Your task to perform on an android device: Search for usb-c on bestbuy, select the first entry, add it to the cart, then select checkout. Image 0: 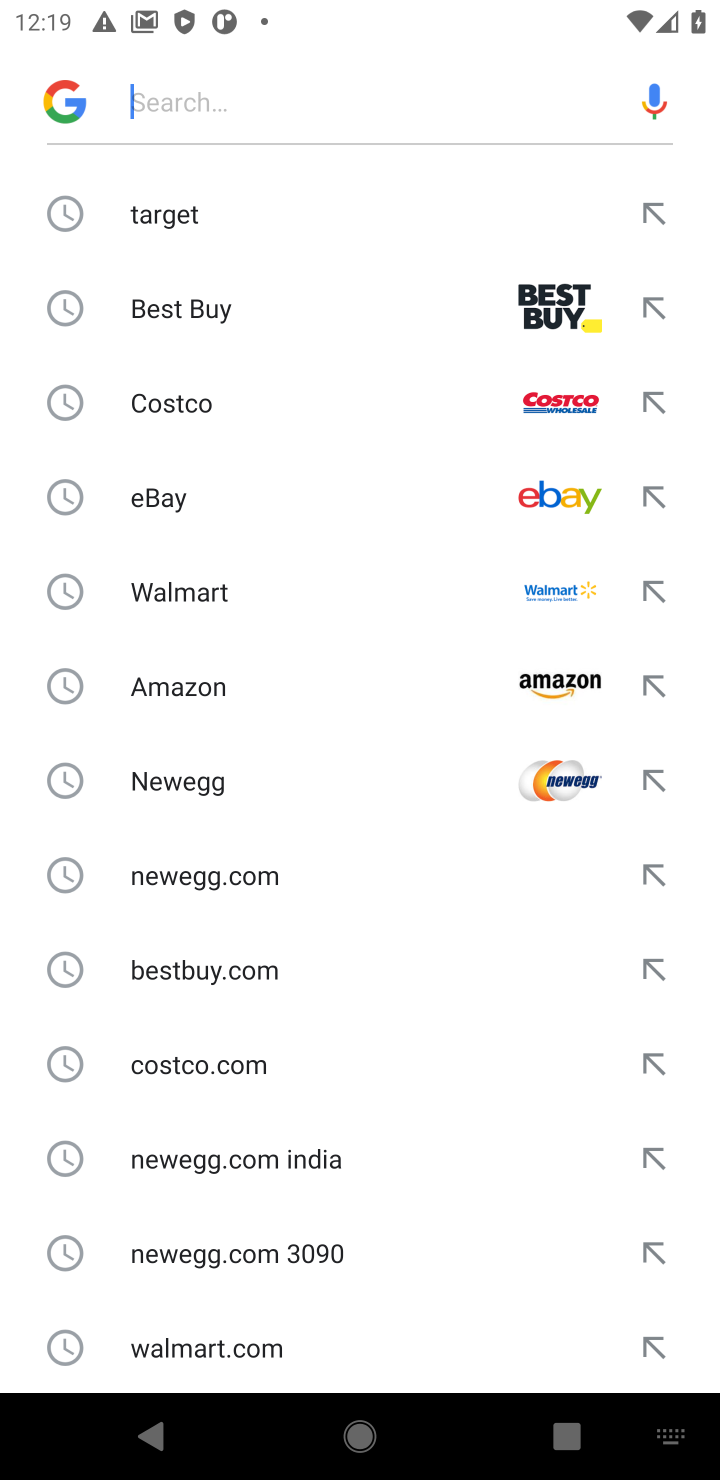
Step 0: click (175, 113)
Your task to perform on an android device: Search for usb-c on bestbuy, select the first entry, add it to the cart, then select checkout. Image 1: 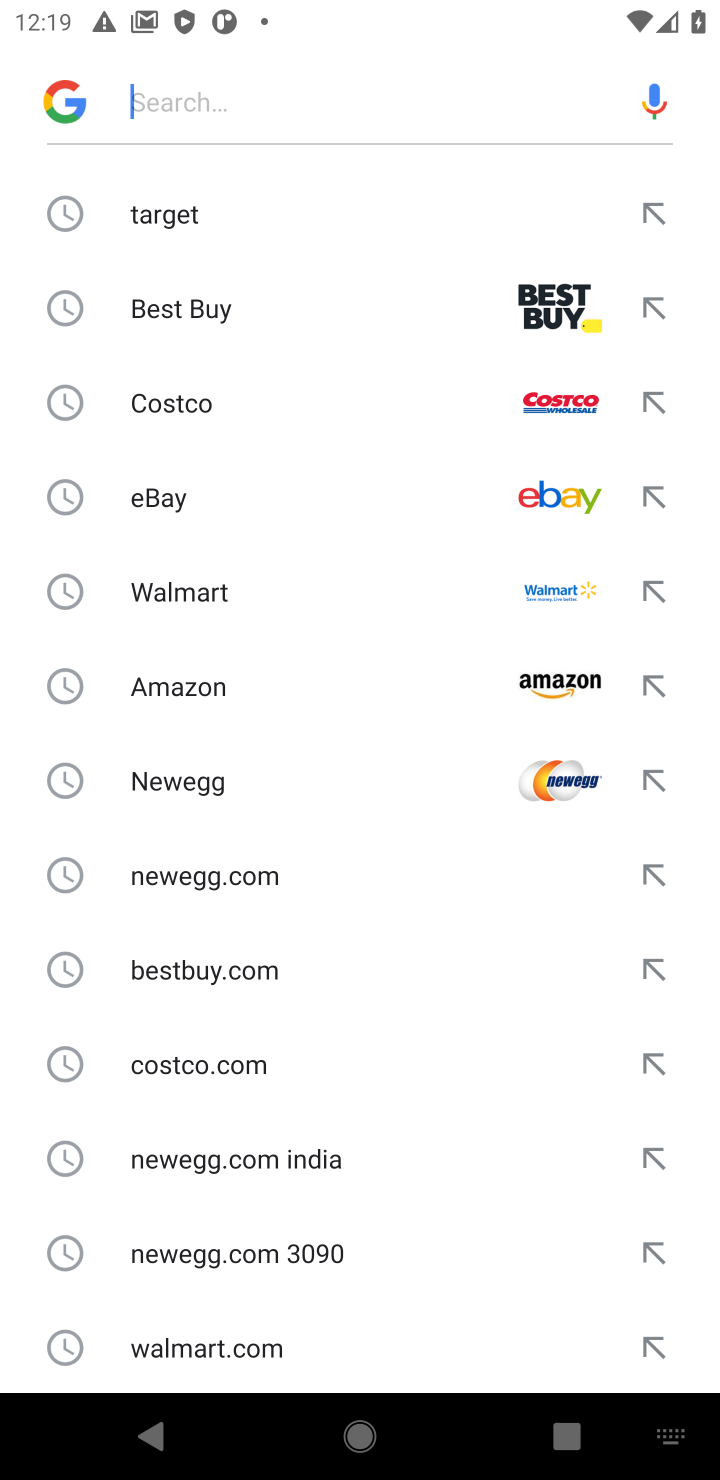
Step 1: type "bestbuy.com"
Your task to perform on an android device: Search for usb-c on bestbuy, select the first entry, add it to the cart, then select checkout. Image 2: 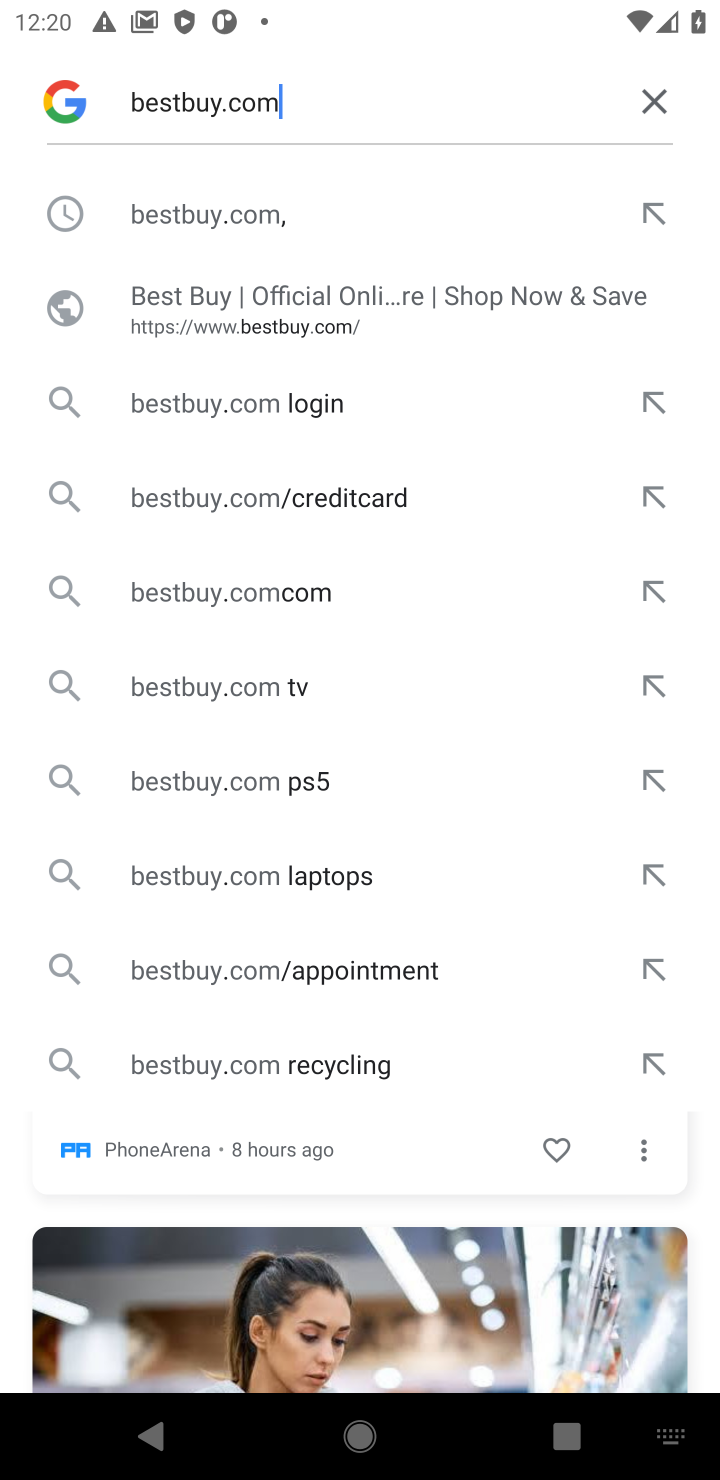
Step 2: click (181, 217)
Your task to perform on an android device: Search for usb-c on bestbuy, select the first entry, add it to the cart, then select checkout. Image 3: 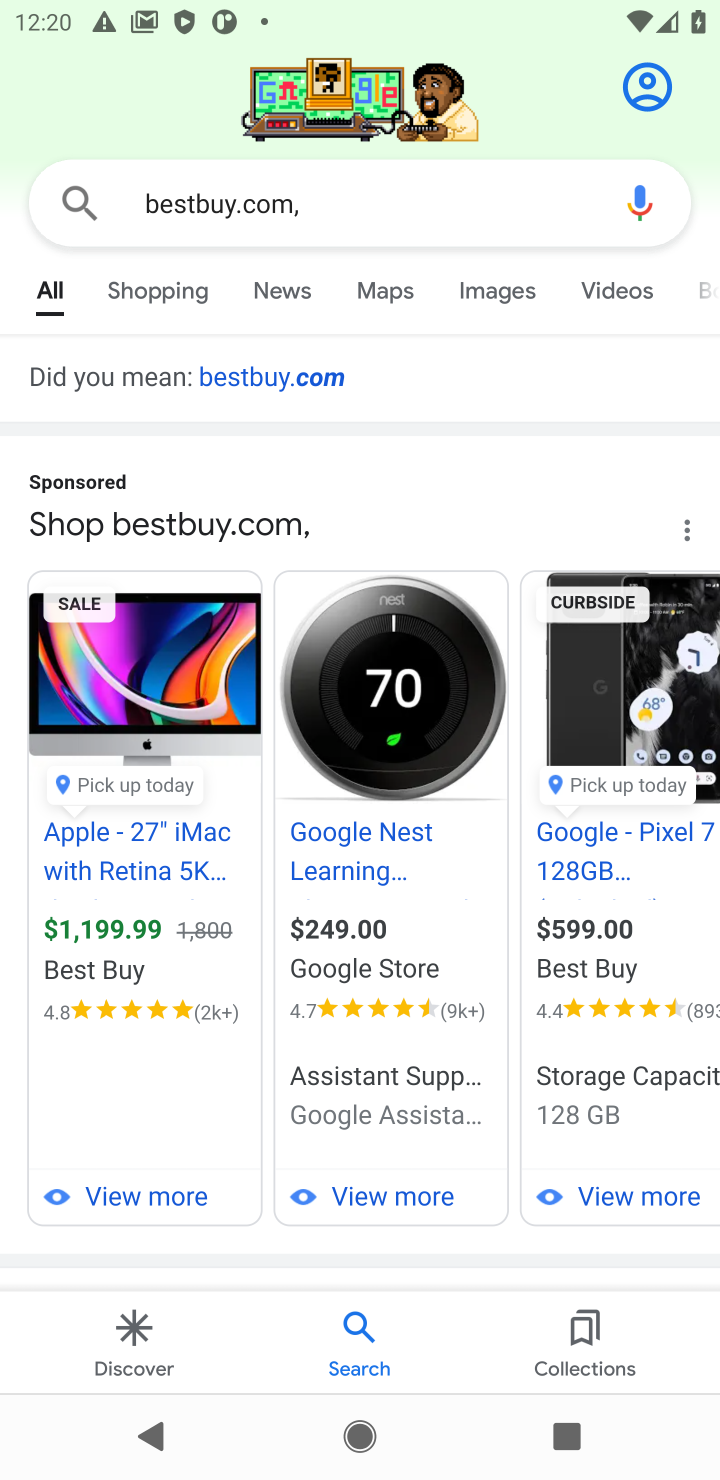
Step 3: drag from (182, 747) to (180, 354)
Your task to perform on an android device: Search for usb-c on bestbuy, select the first entry, add it to the cart, then select checkout. Image 4: 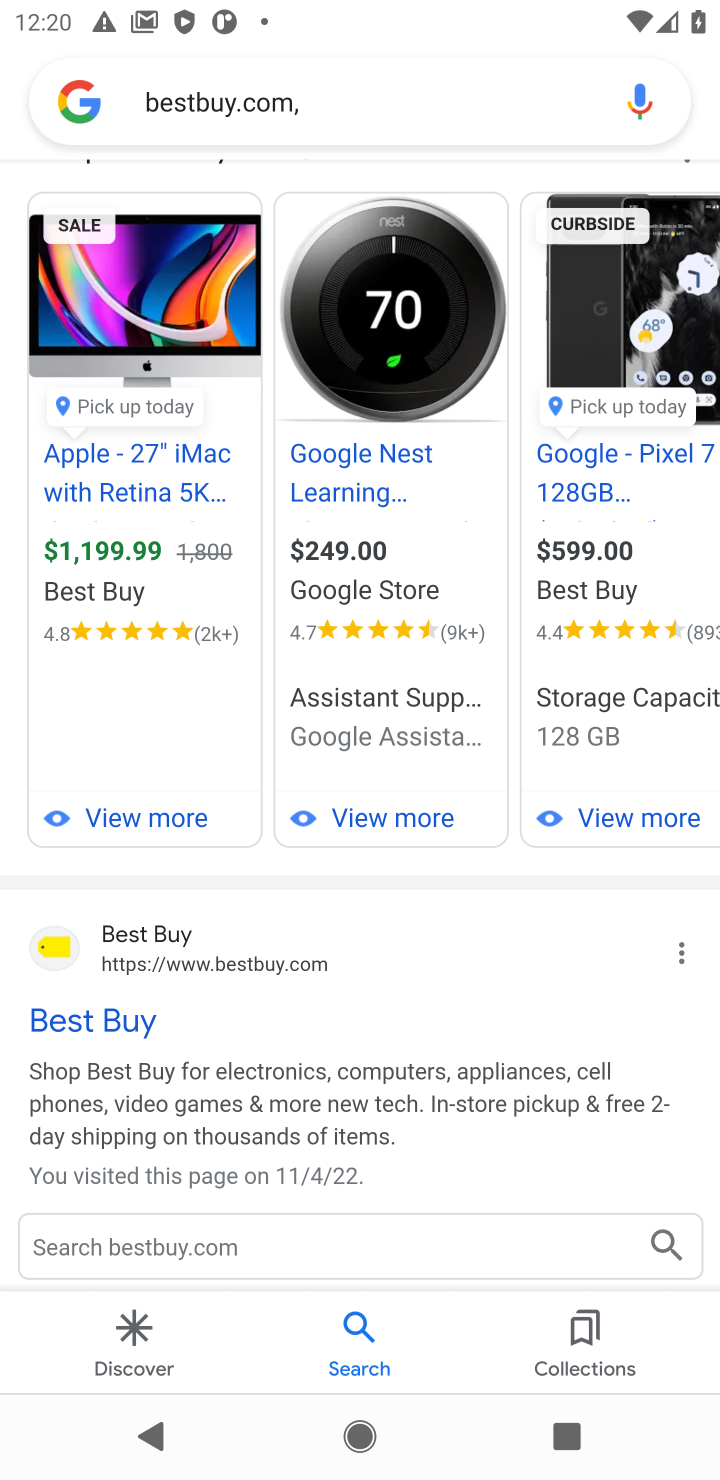
Step 4: click (69, 1031)
Your task to perform on an android device: Search for usb-c on bestbuy, select the first entry, add it to the cart, then select checkout. Image 5: 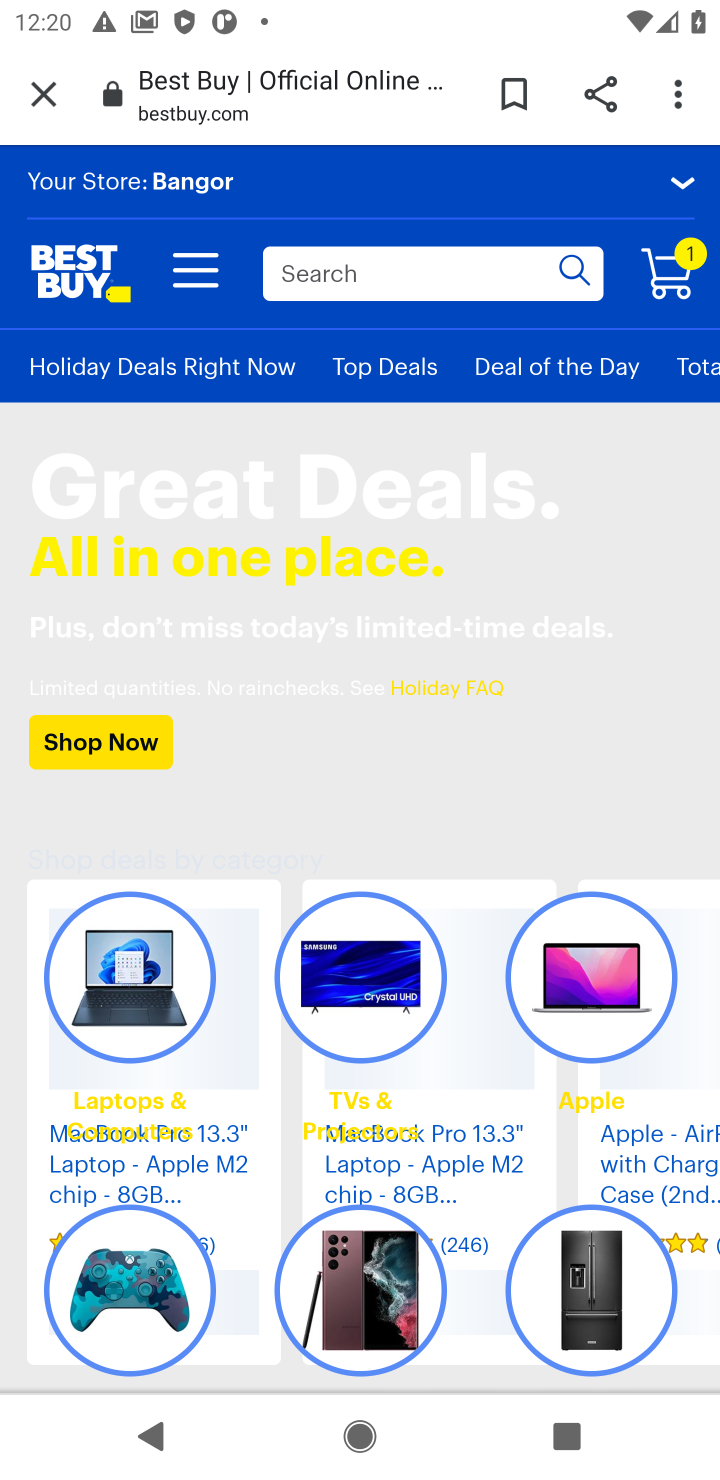
Step 5: click (370, 266)
Your task to perform on an android device: Search for usb-c on bestbuy, select the first entry, add it to the cart, then select checkout. Image 6: 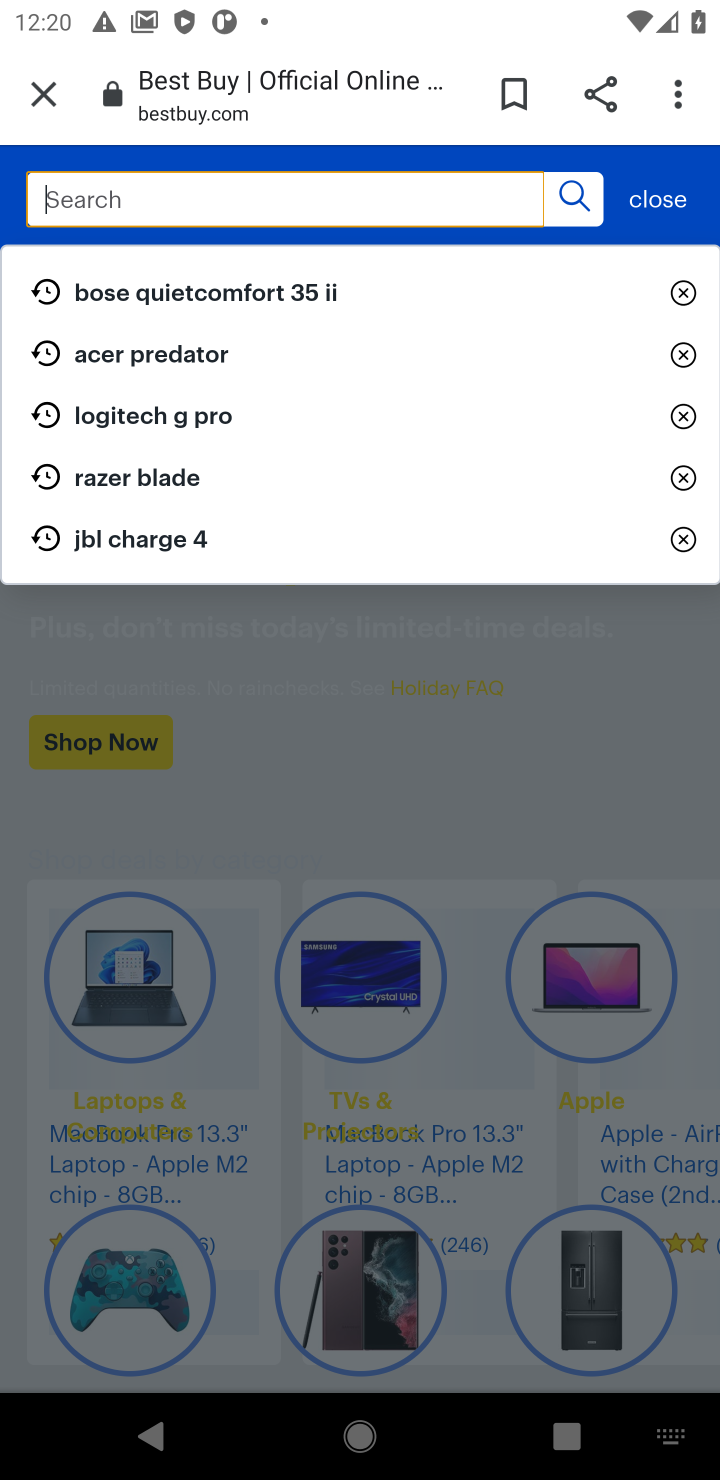
Step 6: type "usb-c"
Your task to perform on an android device: Search for usb-c on bestbuy, select the first entry, add it to the cart, then select checkout. Image 7: 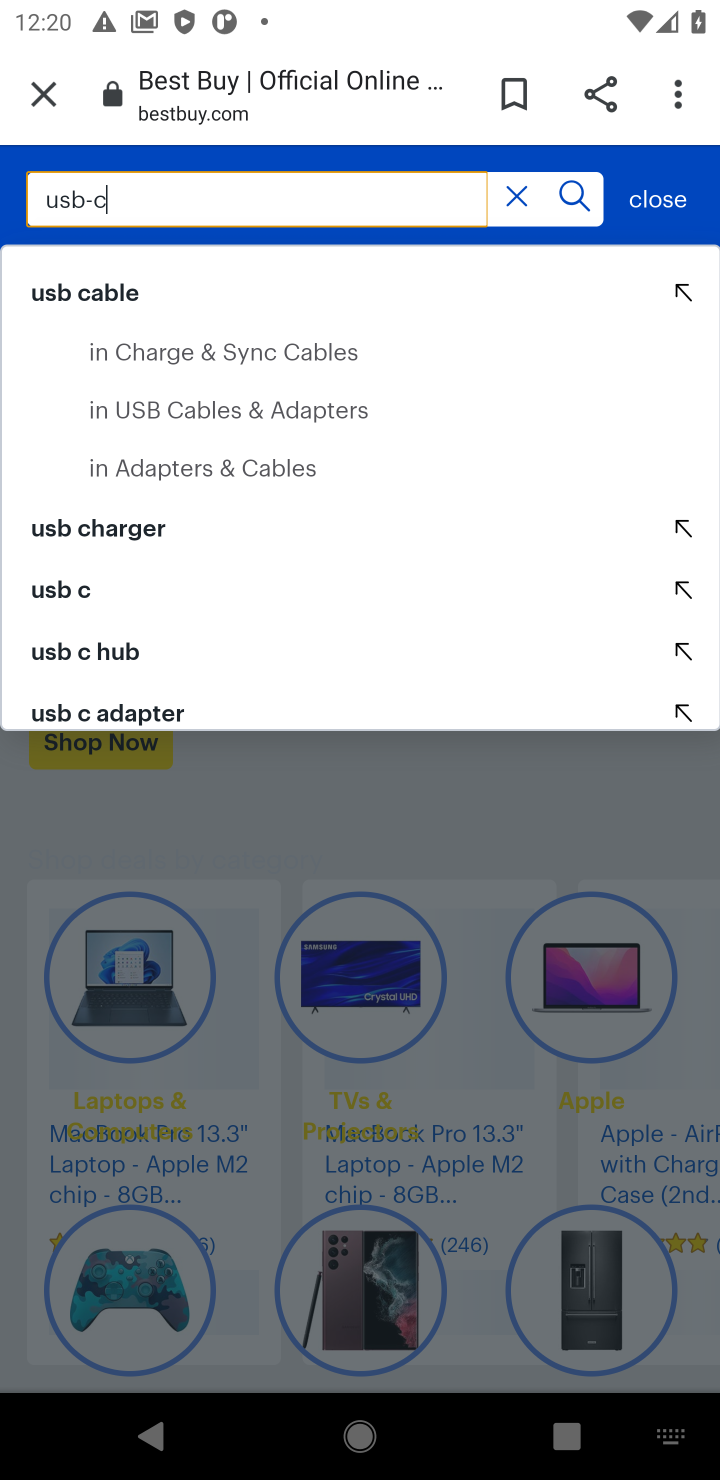
Step 7: click (49, 593)
Your task to perform on an android device: Search for usb-c on bestbuy, select the first entry, add it to the cart, then select checkout. Image 8: 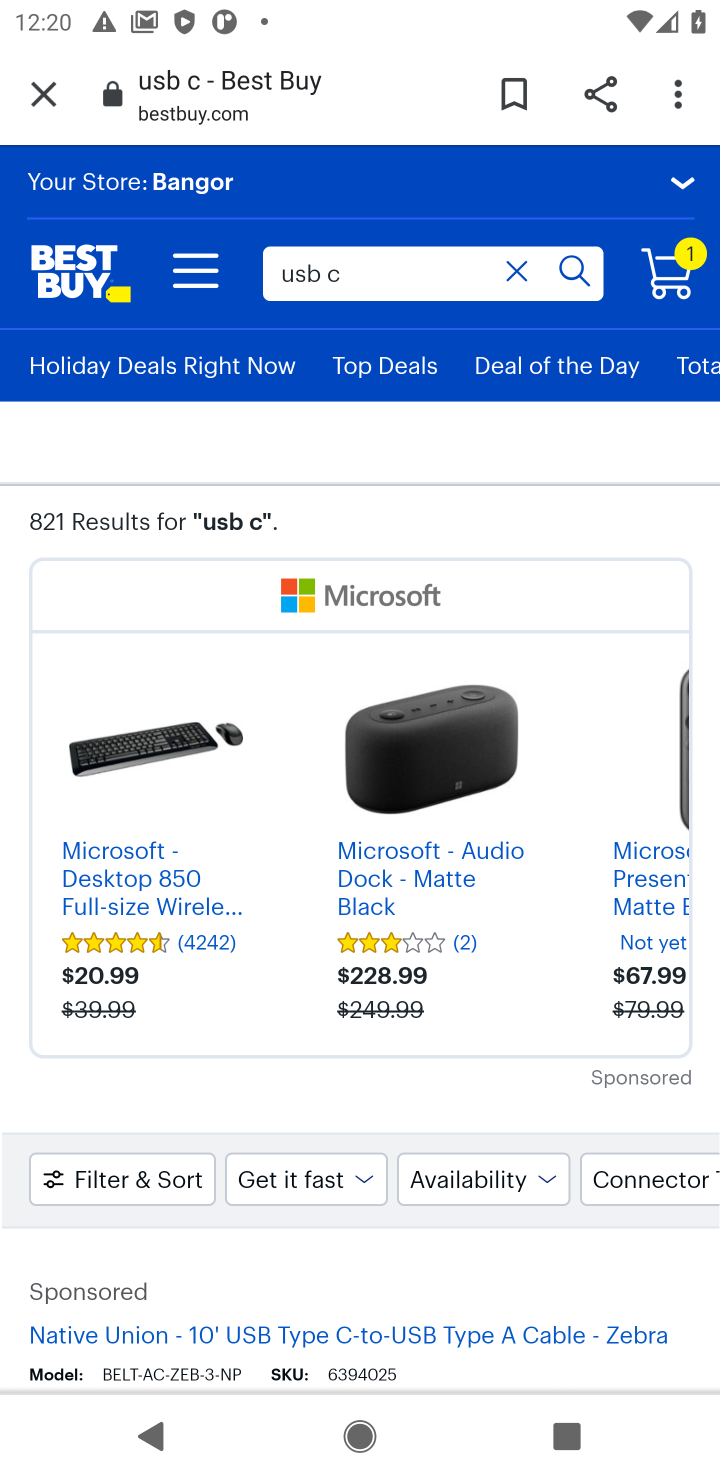
Step 8: drag from (300, 1065) to (299, 577)
Your task to perform on an android device: Search for usb-c on bestbuy, select the first entry, add it to the cart, then select checkout. Image 9: 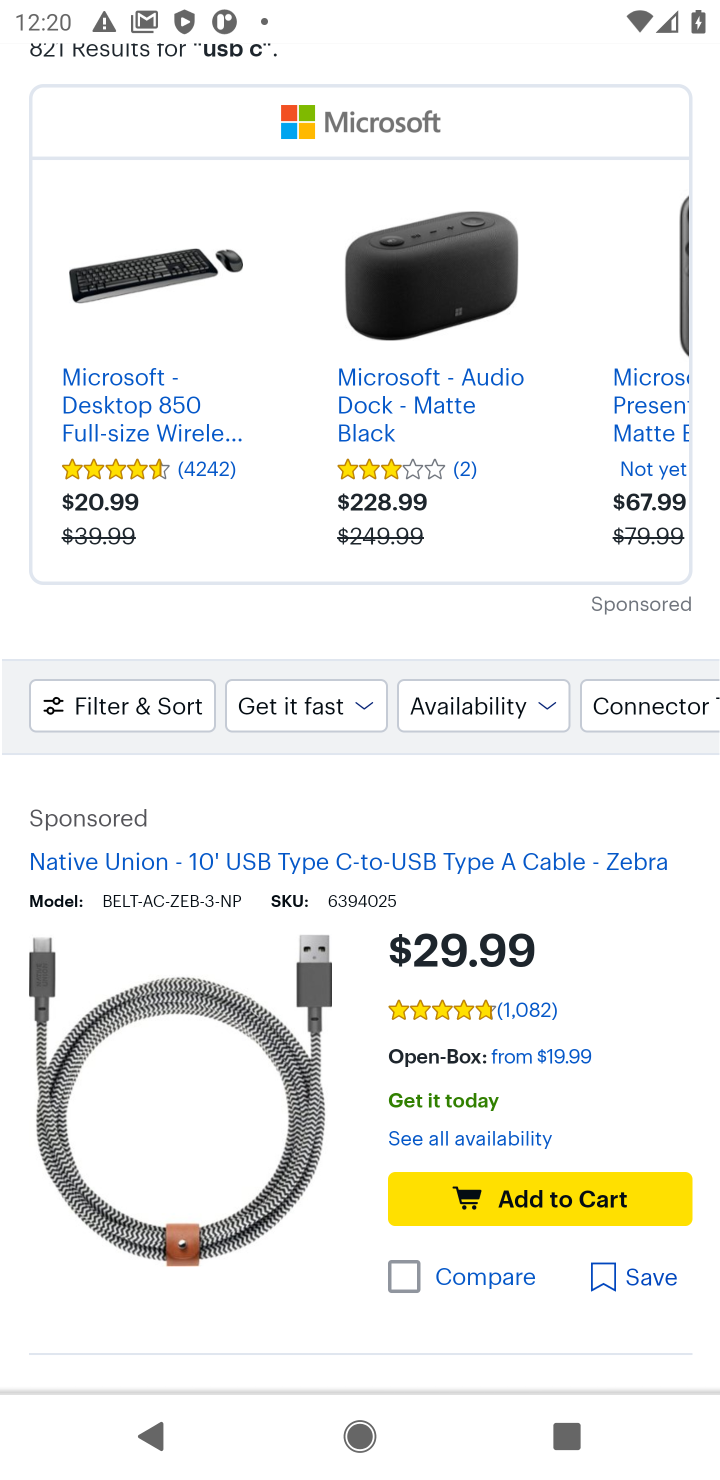
Step 9: drag from (267, 991) to (308, 570)
Your task to perform on an android device: Search for usb-c on bestbuy, select the first entry, add it to the cart, then select checkout. Image 10: 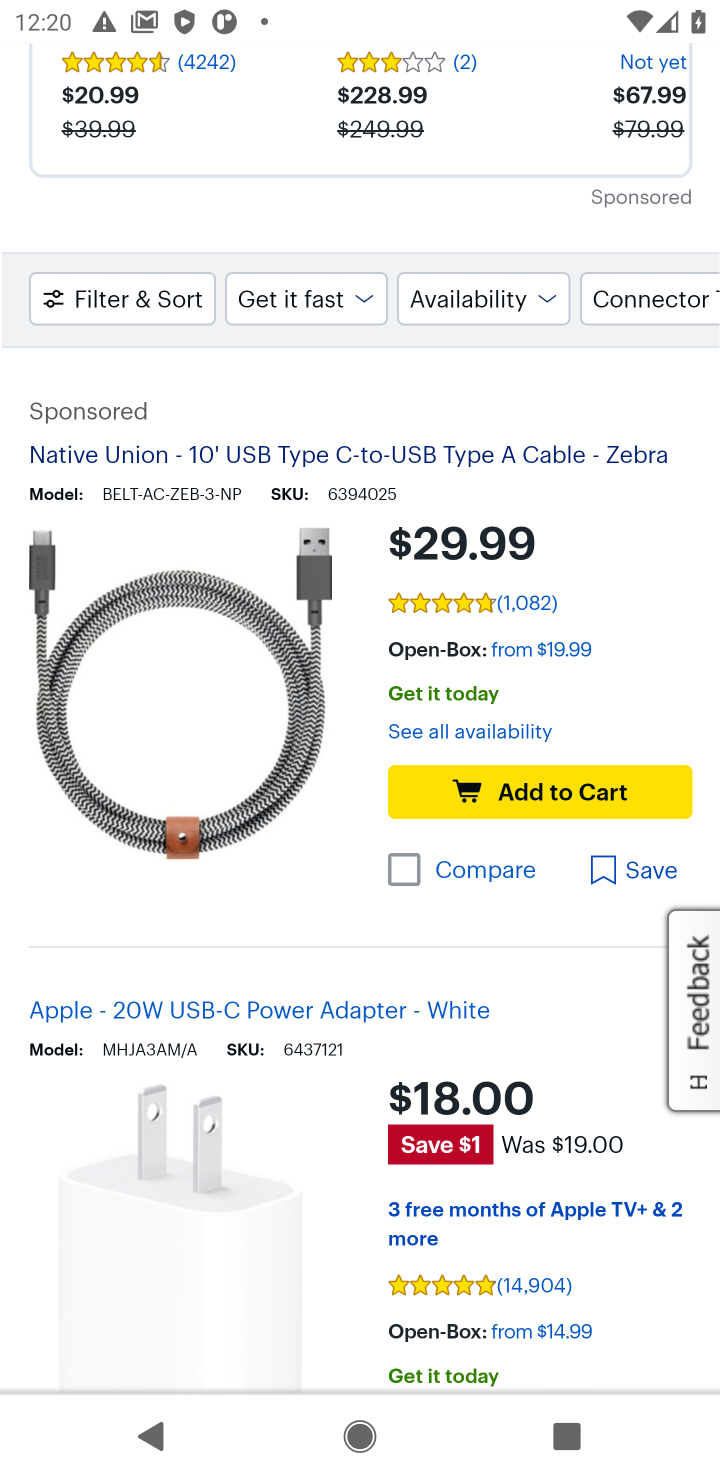
Step 10: click (510, 786)
Your task to perform on an android device: Search for usb-c on bestbuy, select the first entry, add it to the cart, then select checkout. Image 11: 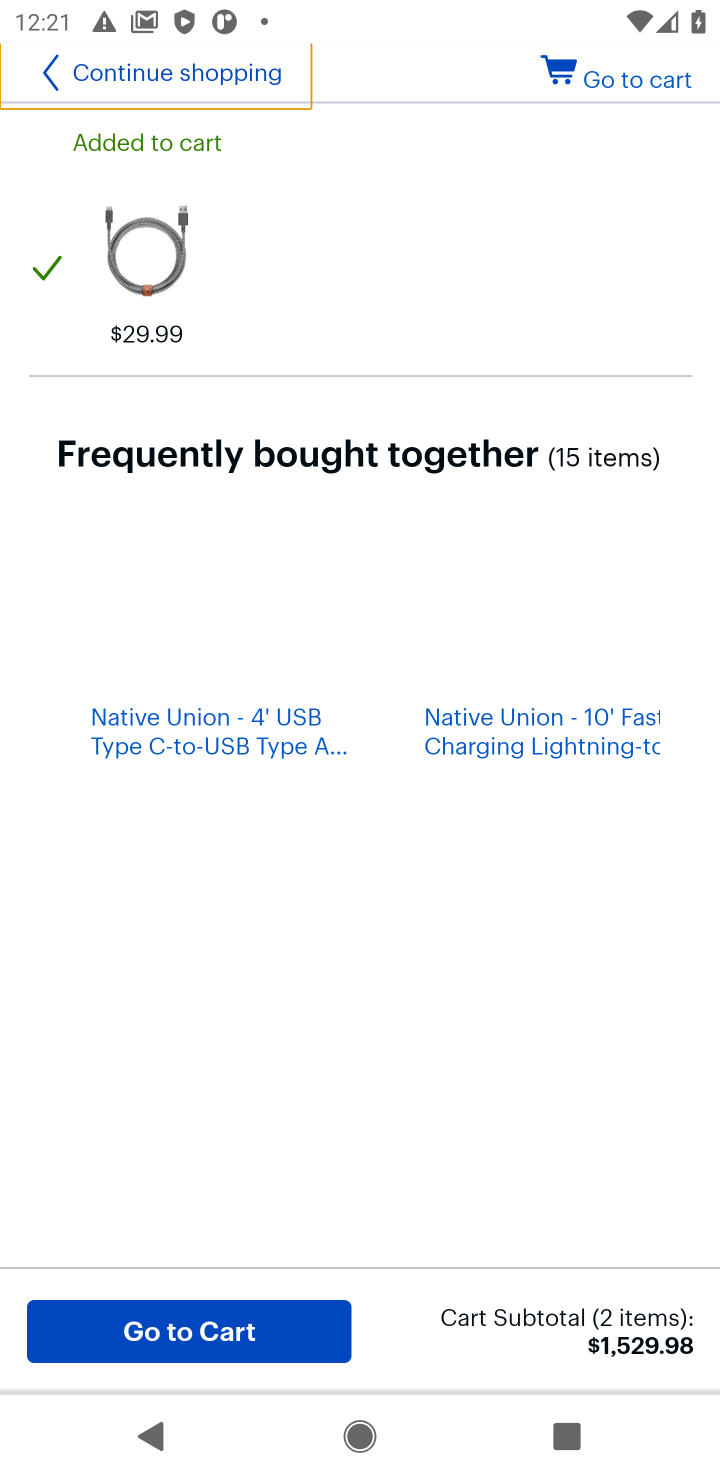
Step 11: click (639, 82)
Your task to perform on an android device: Search for usb-c on bestbuy, select the first entry, add it to the cart, then select checkout. Image 12: 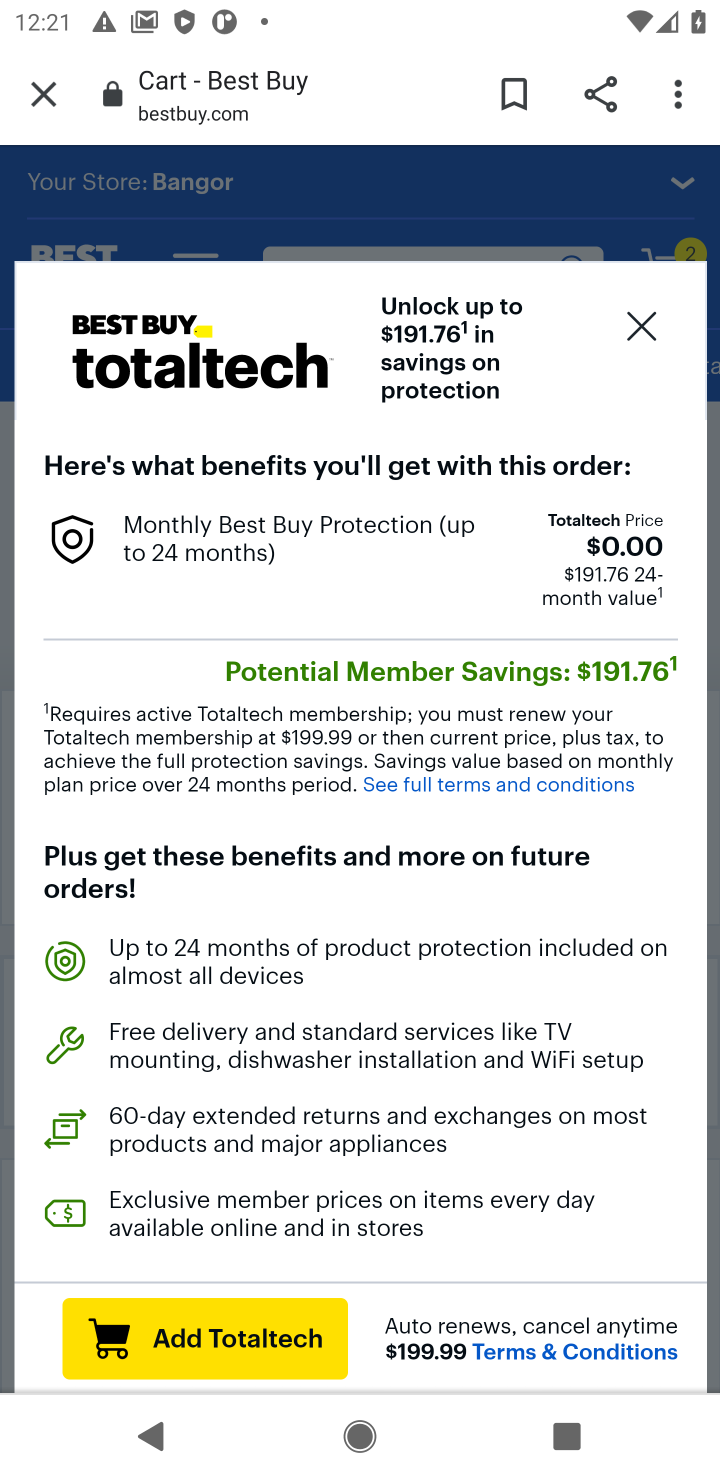
Step 12: click (636, 317)
Your task to perform on an android device: Search for usb-c on bestbuy, select the first entry, add it to the cart, then select checkout. Image 13: 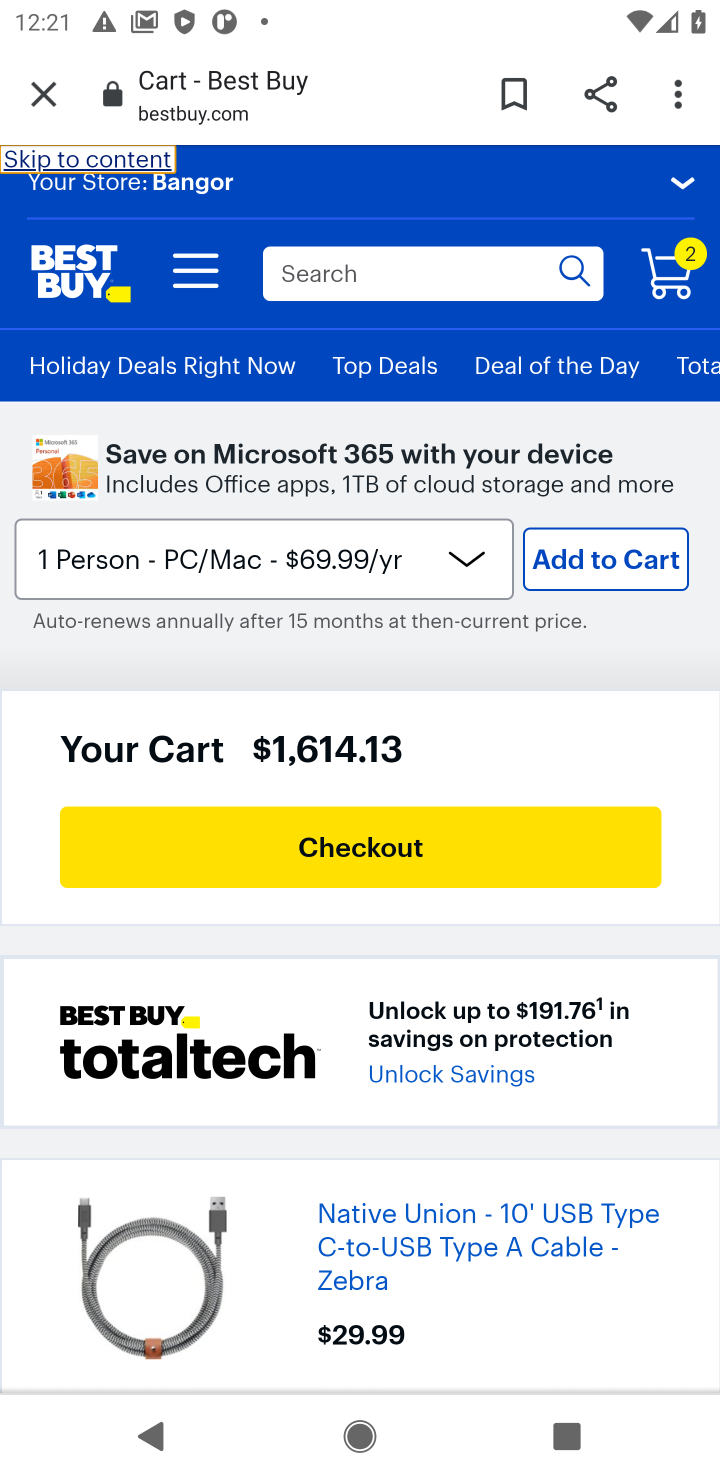
Step 13: click (363, 835)
Your task to perform on an android device: Search for usb-c on bestbuy, select the first entry, add it to the cart, then select checkout. Image 14: 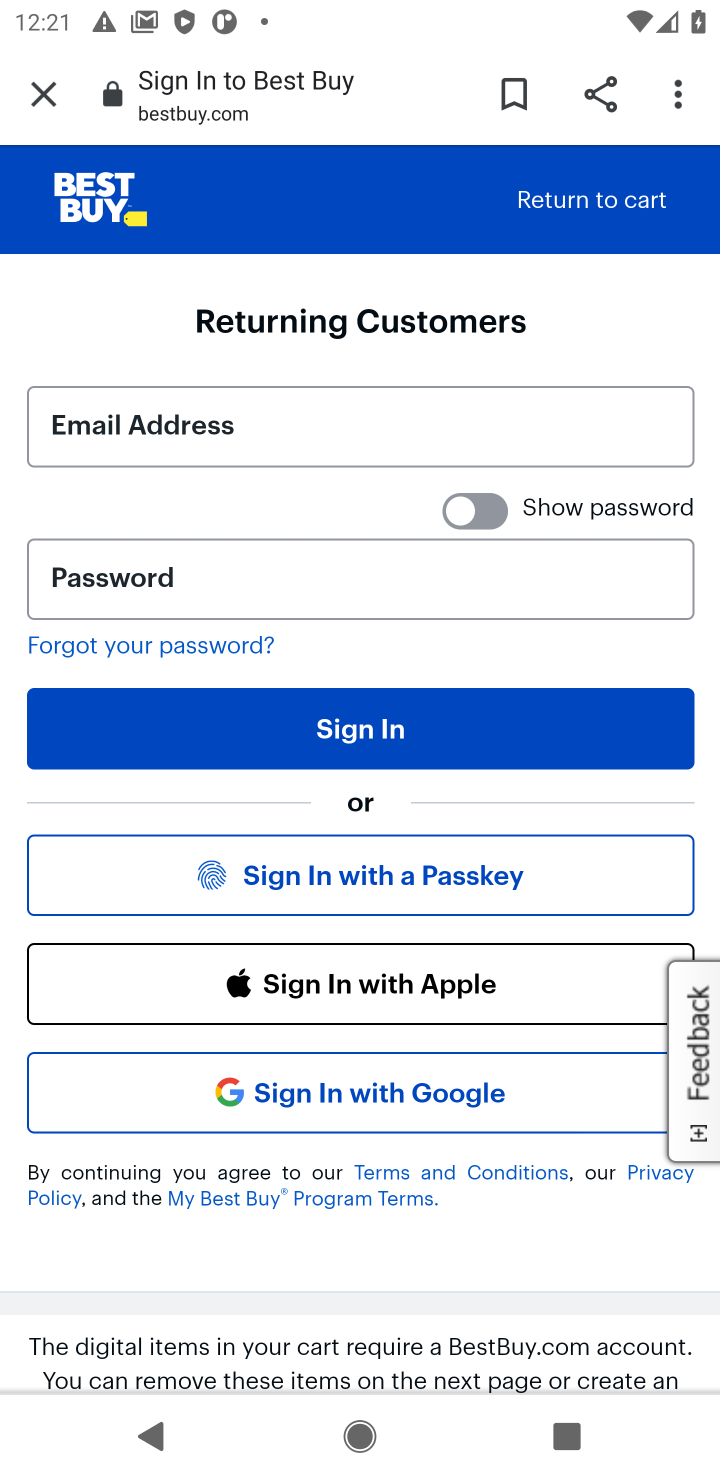
Step 14: task complete